Your task to perform on an android device: Open Chrome and go to the settings page Image 0: 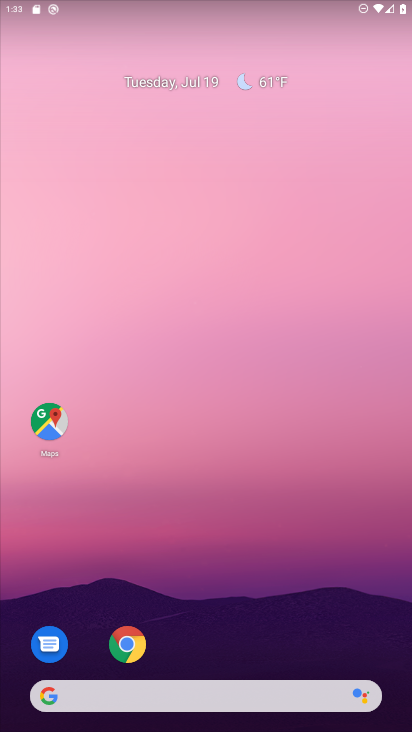
Step 0: click (126, 648)
Your task to perform on an android device: Open Chrome and go to the settings page Image 1: 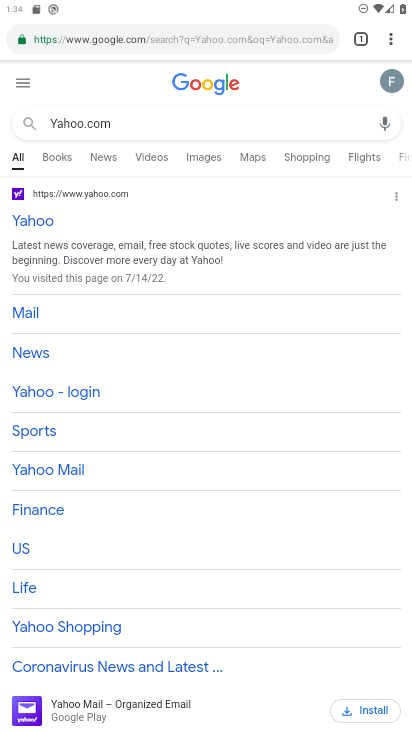
Step 1: task complete